Your task to perform on an android device: Open the map Image 0: 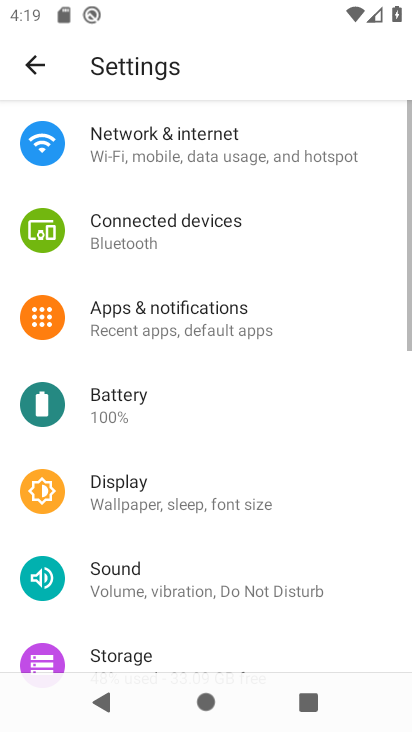
Step 0: press home button
Your task to perform on an android device: Open the map Image 1: 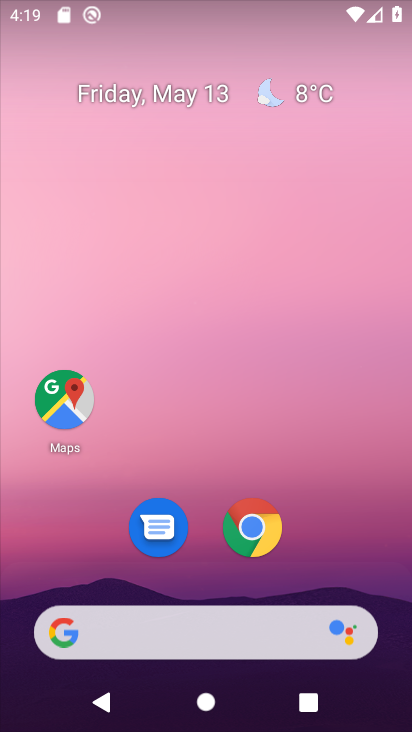
Step 1: click (73, 400)
Your task to perform on an android device: Open the map Image 2: 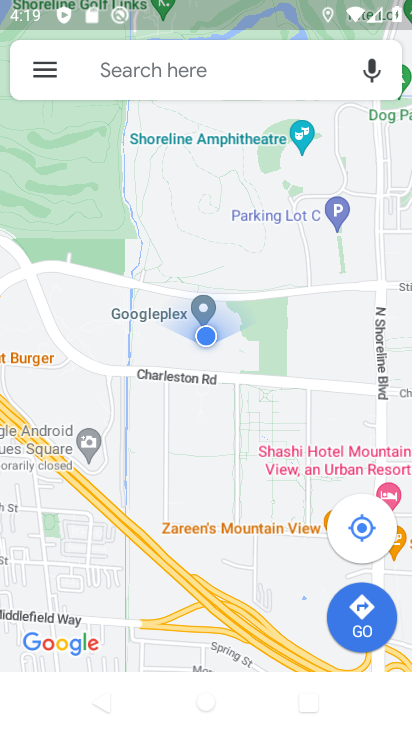
Step 2: task complete